Your task to perform on an android device: Open Chrome and go to settings Image 0: 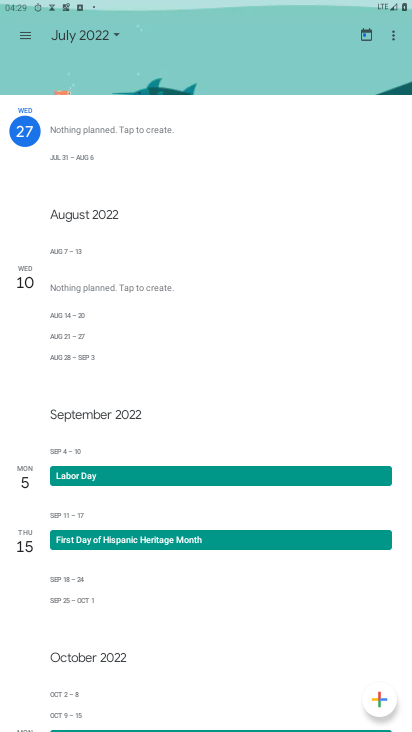
Step 0: press home button
Your task to perform on an android device: Open Chrome and go to settings Image 1: 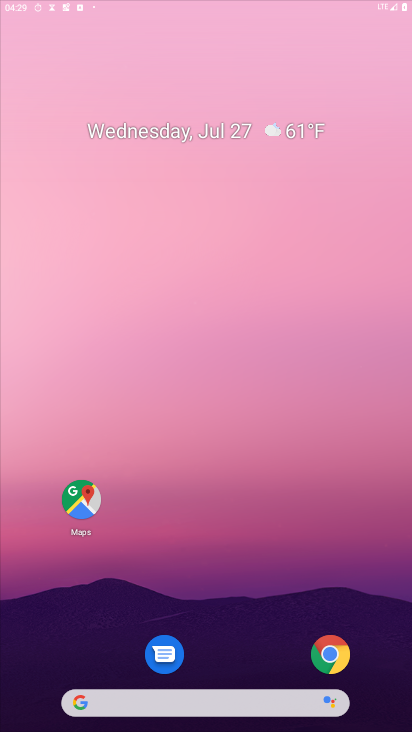
Step 1: press home button
Your task to perform on an android device: Open Chrome and go to settings Image 2: 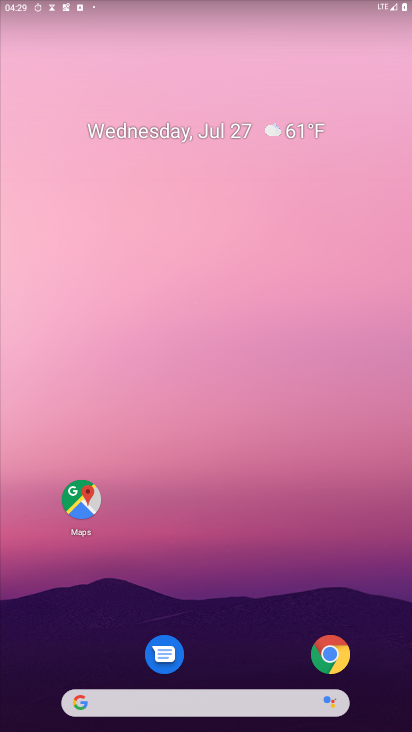
Step 2: press home button
Your task to perform on an android device: Open Chrome and go to settings Image 3: 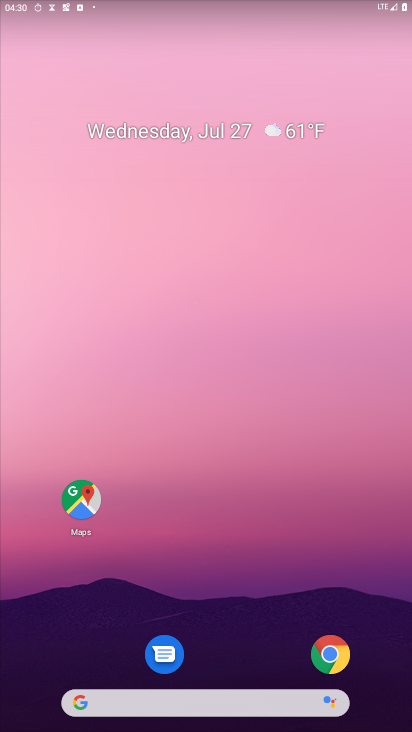
Step 3: drag from (237, 686) to (260, 47)
Your task to perform on an android device: Open Chrome and go to settings Image 4: 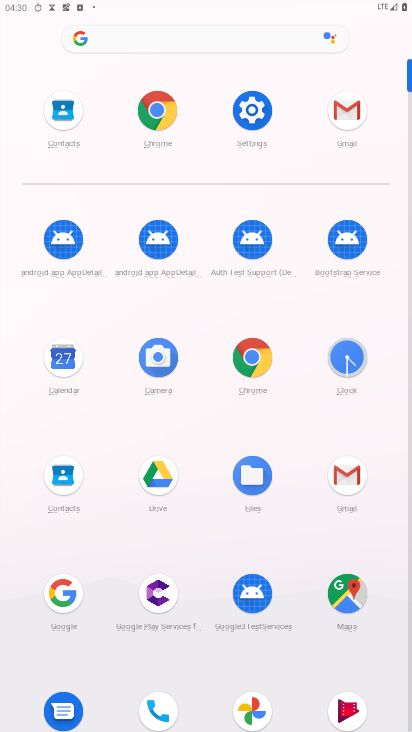
Step 4: click (254, 359)
Your task to perform on an android device: Open Chrome and go to settings Image 5: 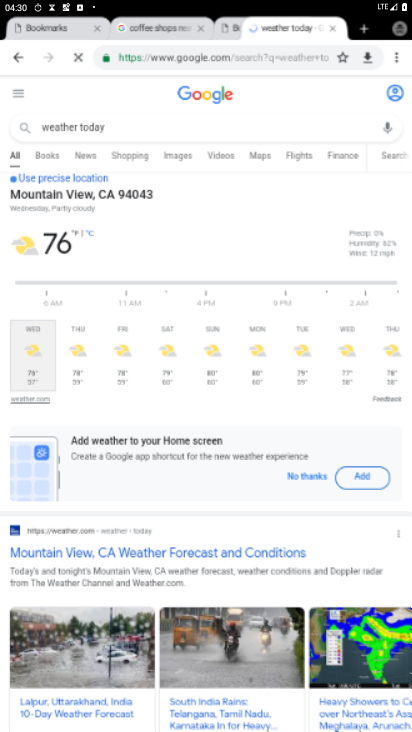
Step 5: task complete